Your task to perform on an android device: What is the news today? Image 0: 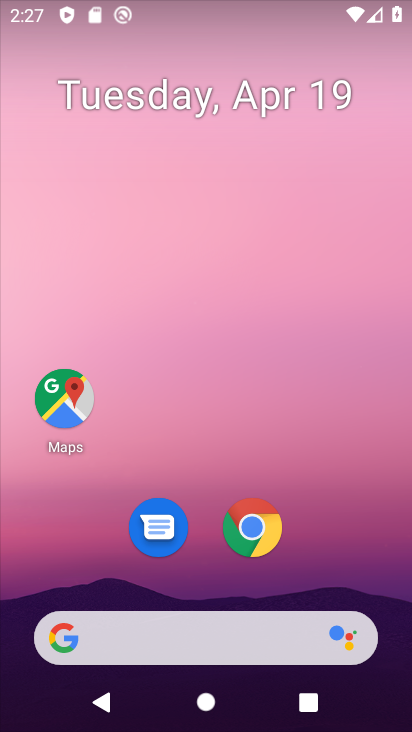
Step 0: drag from (207, 547) to (199, 350)
Your task to perform on an android device: What is the news today? Image 1: 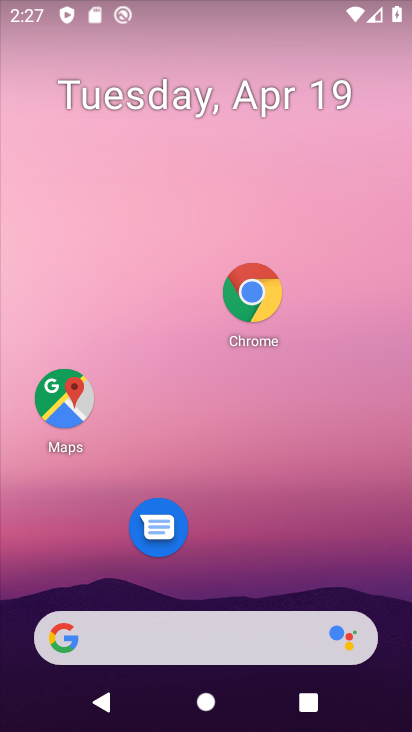
Step 1: drag from (178, 566) to (176, 207)
Your task to perform on an android device: What is the news today? Image 2: 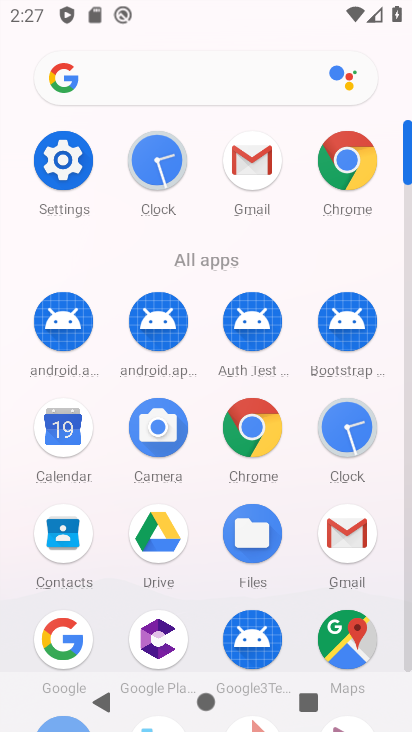
Step 2: click (50, 644)
Your task to perform on an android device: What is the news today? Image 3: 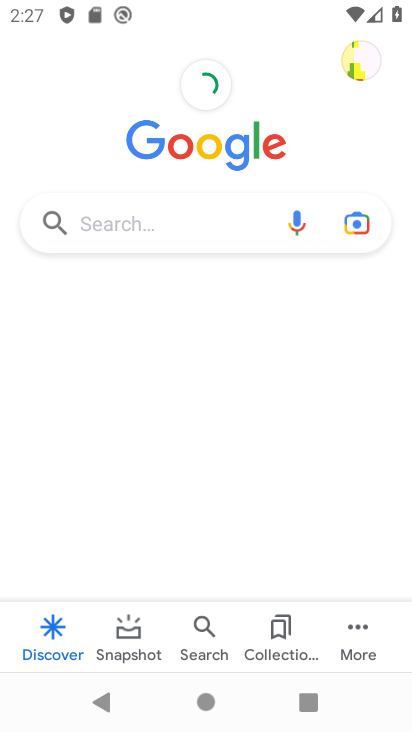
Step 3: click (140, 221)
Your task to perform on an android device: What is the news today? Image 4: 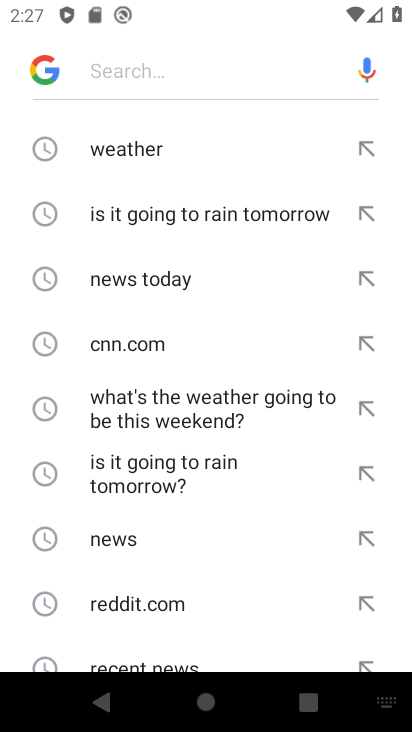
Step 4: type "what is the news today?"
Your task to perform on an android device: What is the news today? Image 5: 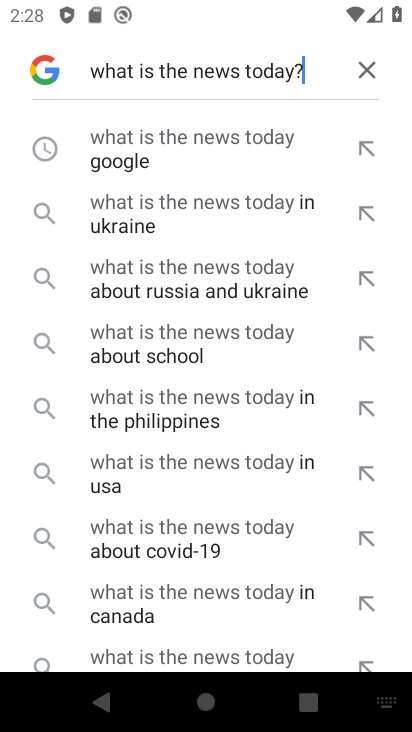
Step 5: click (239, 140)
Your task to perform on an android device: What is the news today? Image 6: 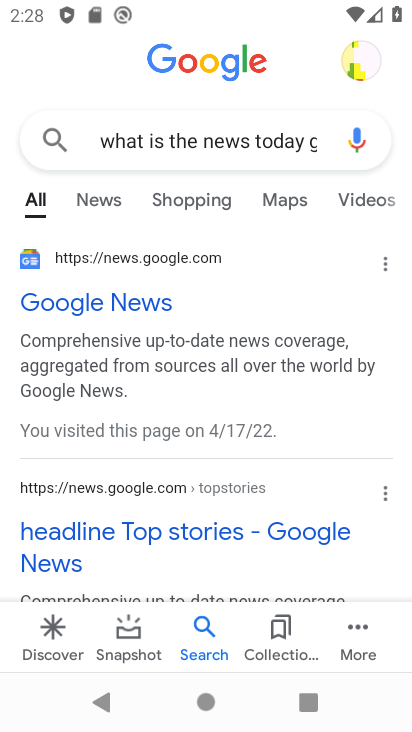
Step 6: click (97, 308)
Your task to perform on an android device: What is the news today? Image 7: 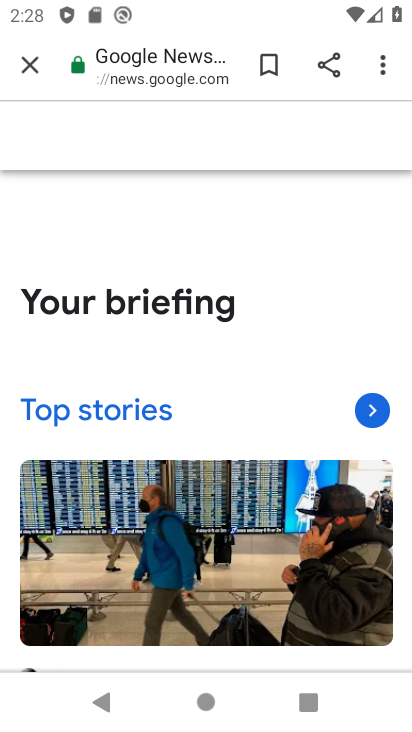
Step 7: task complete